Your task to perform on an android device: Go to Maps Image 0: 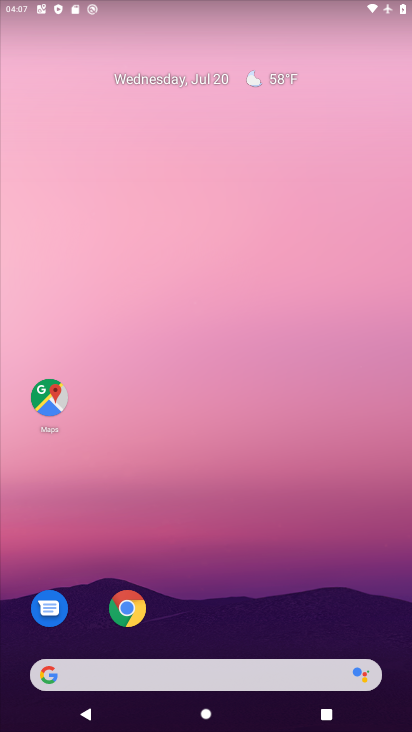
Step 0: click (48, 400)
Your task to perform on an android device: Go to Maps Image 1: 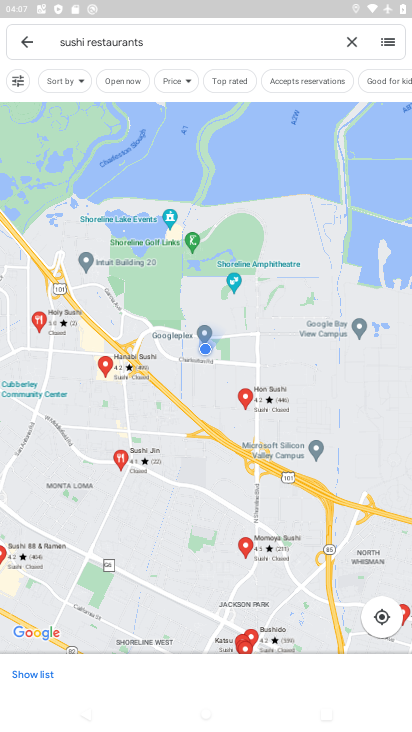
Step 1: task complete